Your task to perform on an android device: see sites visited before in the chrome app Image 0: 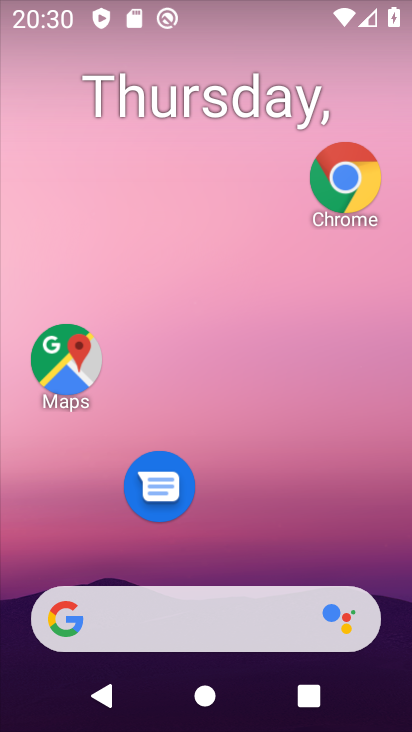
Step 0: click (348, 168)
Your task to perform on an android device: see sites visited before in the chrome app Image 1: 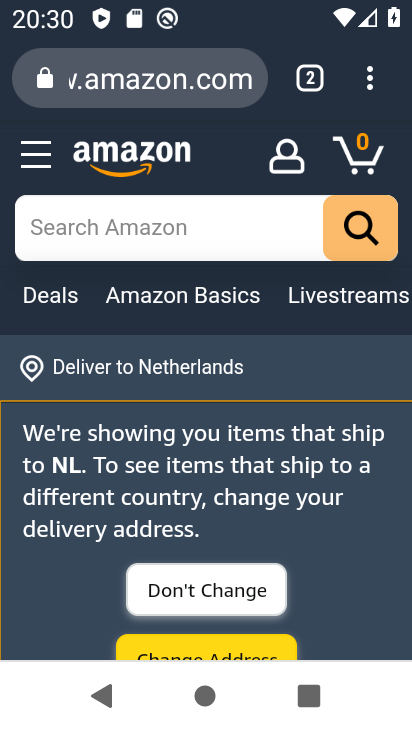
Step 1: click (316, 82)
Your task to perform on an android device: see sites visited before in the chrome app Image 2: 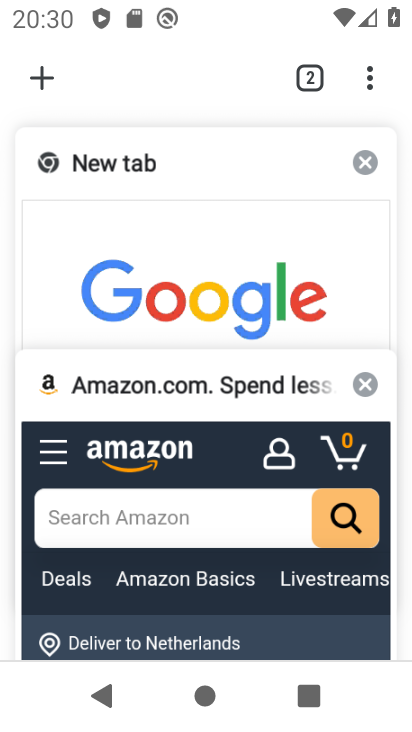
Step 2: task complete